Your task to perform on an android device: What is the news today? Image 0: 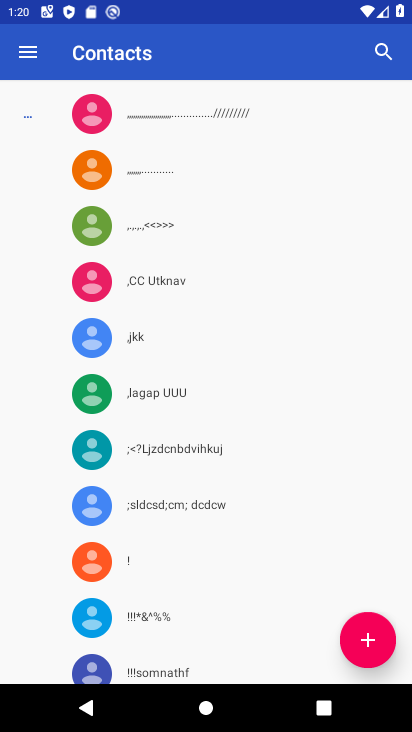
Step 0: press back button
Your task to perform on an android device: What is the news today? Image 1: 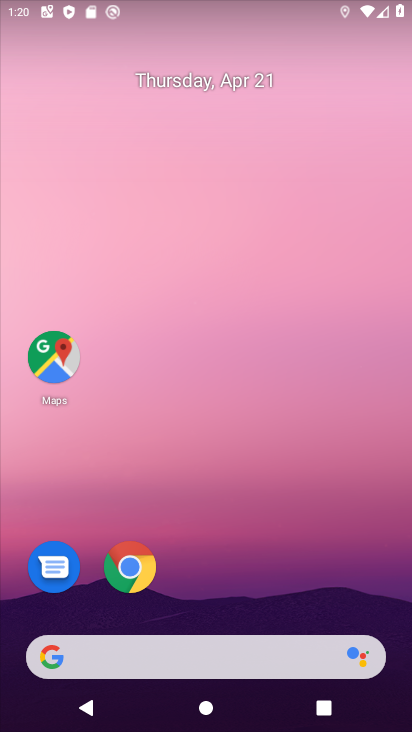
Step 1: click (138, 668)
Your task to perform on an android device: What is the news today? Image 2: 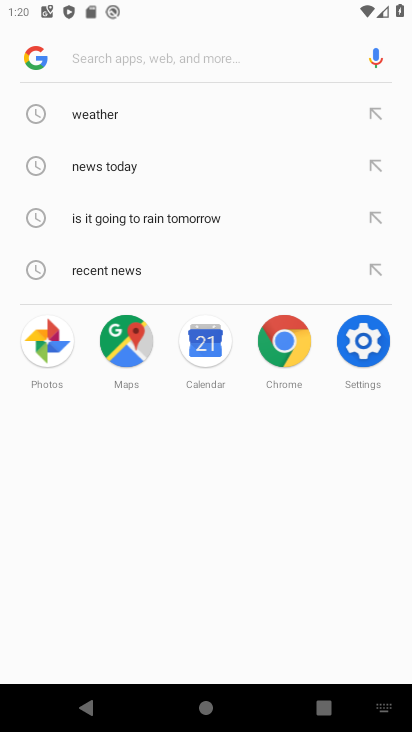
Step 2: click (138, 171)
Your task to perform on an android device: What is the news today? Image 3: 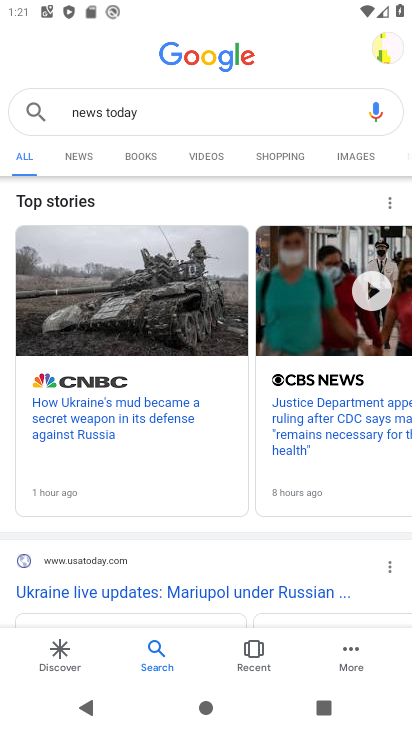
Step 3: task complete